Your task to perform on an android device: Do I have any events tomorrow? Image 0: 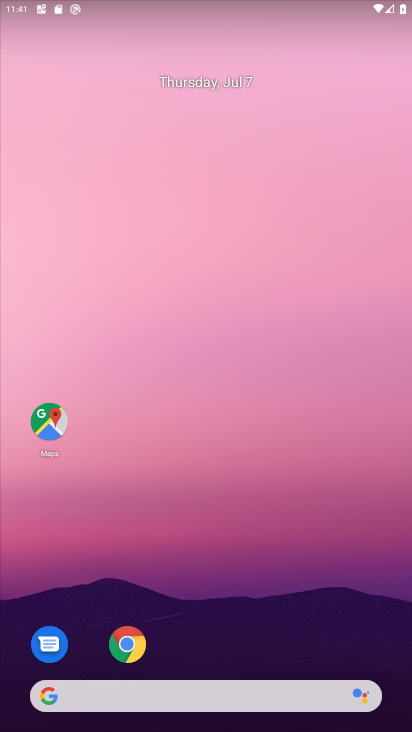
Step 0: drag from (21, 709) to (225, 40)
Your task to perform on an android device: Do I have any events tomorrow? Image 1: 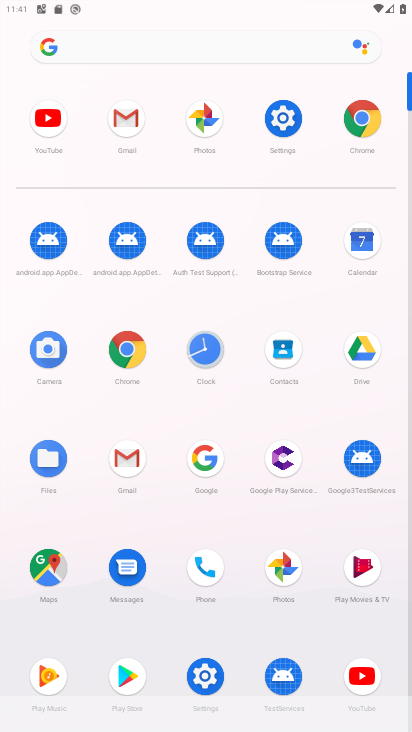
Step 1: drag from (34, 681) to (113, 2)
Your task to perform on an android device: Do I have any events tomorrow? Image 2: 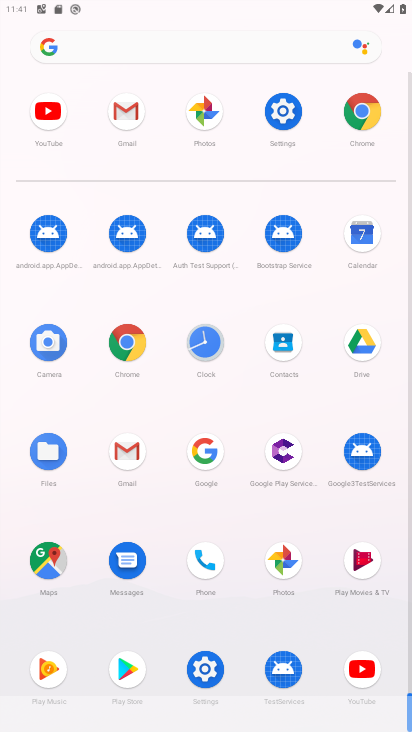
Step 2: click (364, 243)
Your task to perform on an android device: Do I have any events tomorrow? Image 3: 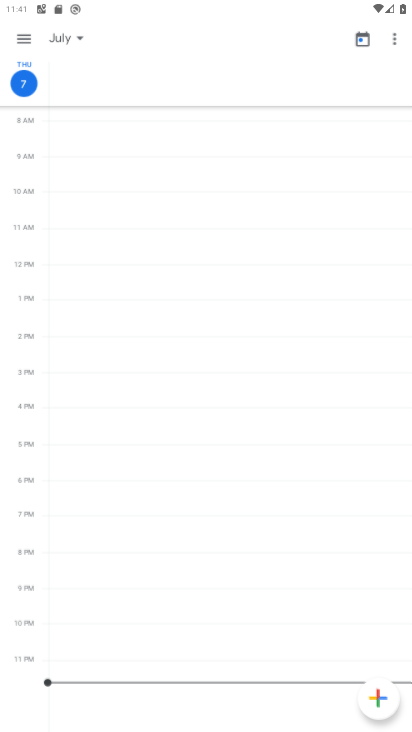
Step 3: click (355, 242)
Your task to perform on an android device: Do I have any events tomorrow? Image 4: 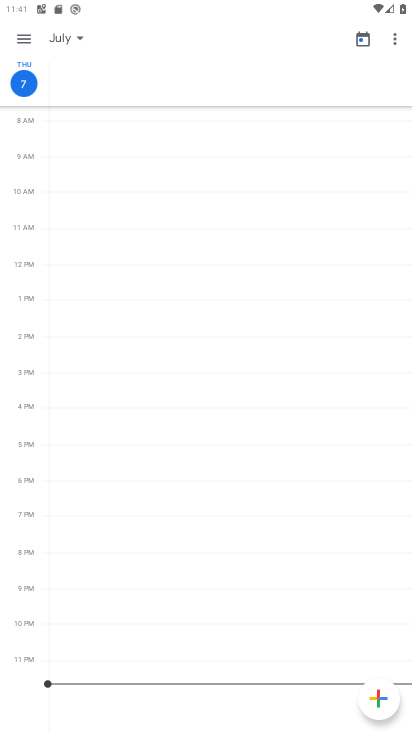
Step 4: click (63, 43)
Your task to perform on an android device: Do I have any events tomorrow? Image 5: 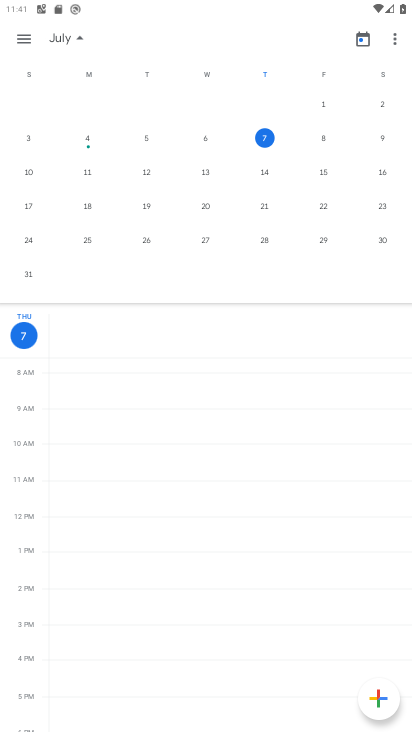
Step 5: click (23, 36)
Your task to perform on an android device: Do I have any events tomorrow? Image 6: 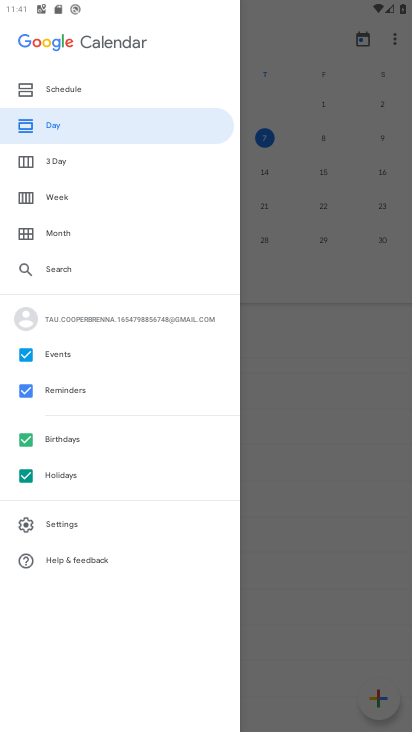
Step 6: task complete